Your task to perform on an android device: open a bookmark in the chrome app Image 0: 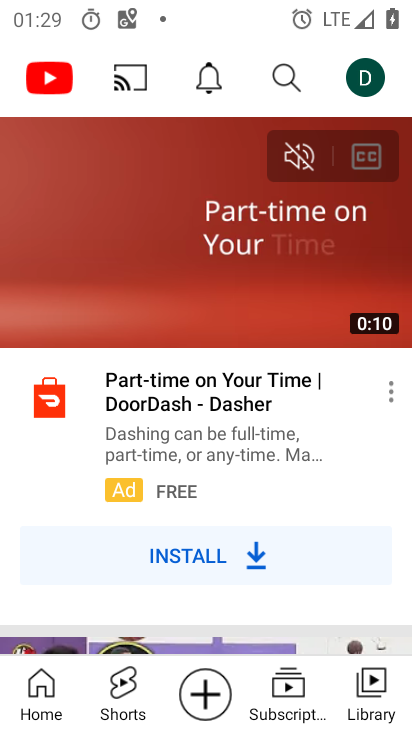
Step 0: press home button
Your task to perform on an android device: open a bookmark in the chrome app Image 1: 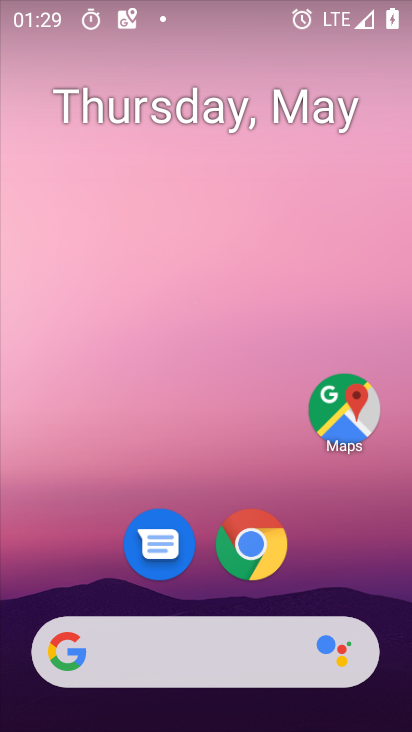
Step 1: drag from (370, 566) to (337, 112)
Your task to perform on an android device: open a bookmark in the chrome app Image 2: 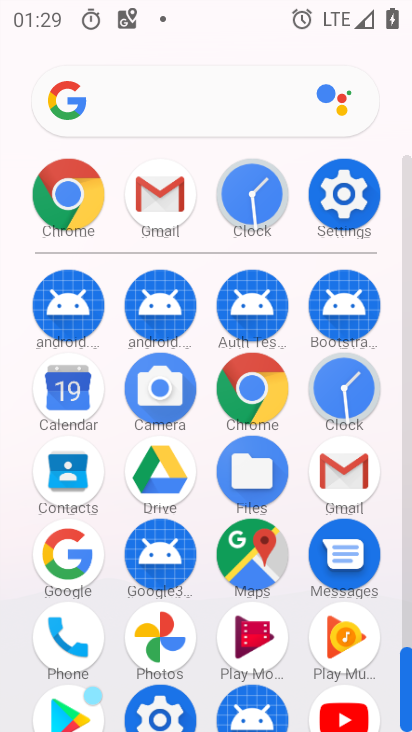
Step 2: click (277, 404)
Your task to perform on an android device: open a bookmark in the chrome app Image 3: 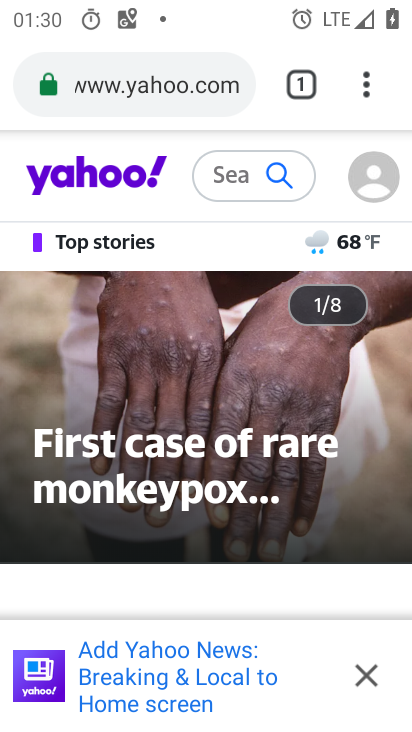
Step 3: click (367, 86)
Your task to perform on an android device: open a bookmark in the chrome app Image 4: 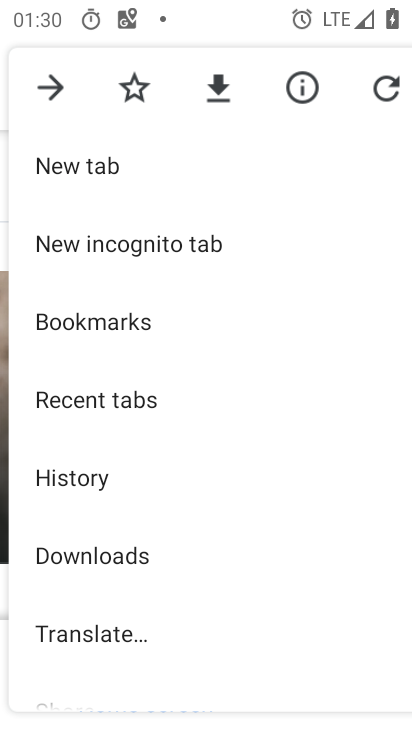
Step 4: drag from (329, 562) to (311, 385)
Your task to perform on an android device: open a bookmark in the chrome app Image 5: 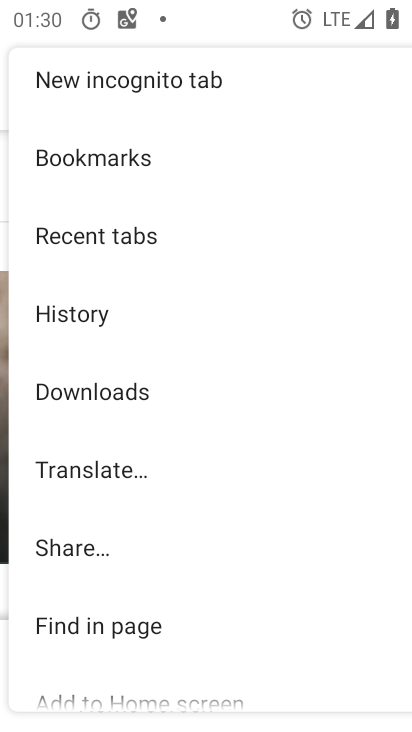
Step 5: drag from (302, 585) to (314, 411)
Your task to perform on an android device: open a bookmark in the chrome app Image 6: 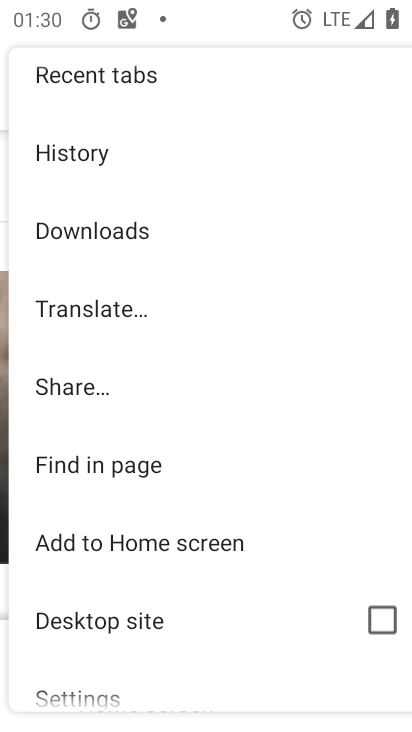
Step 6: drag from (301, 618) to (303, 461)
Your task to perform on an android device: open a bookmark in the chrome app Image 7: 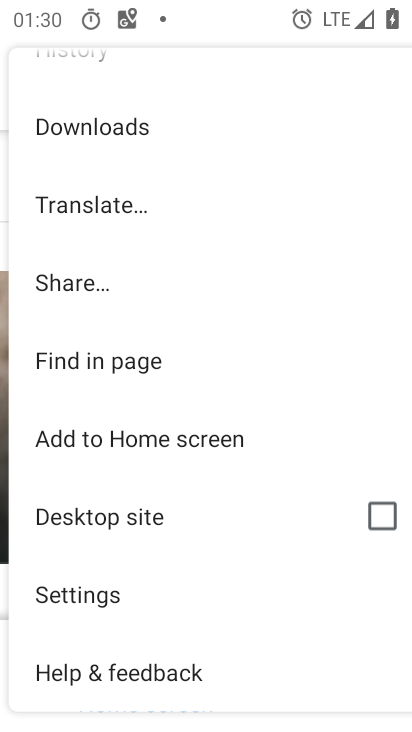
Step 7: drag from (279, 666) to (293, 452)
Your task to perform on an android device: open a bookmark in the chrome app Image 8: 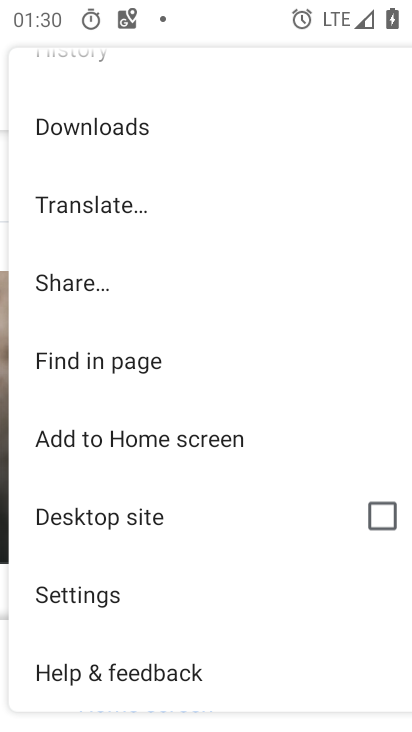
Step 8: drag from (312, 305) to (302, 479)
Your task to perform on an android device: open a bookmark in the chrome app Image 9: 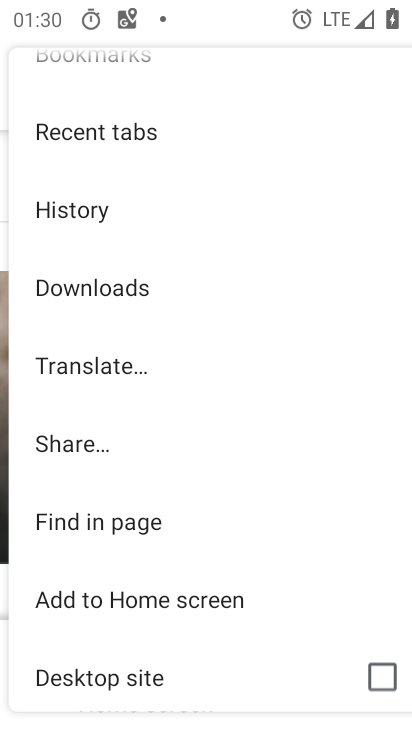
Step 9: drag from (302, 300) to (306, 466)
Your task to perform on an android device: open a bookmark in the chrome app Image 10: 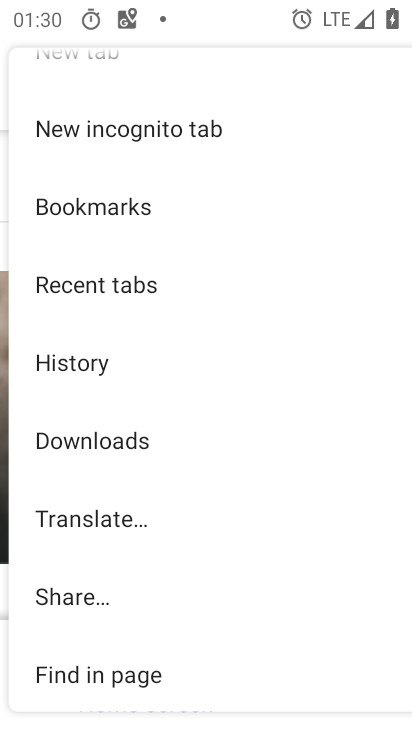
Step 10: drag from (300, 318) to (296, 466)
Your task to perform on an android device: open a bookmark in the chrome app Image 11: 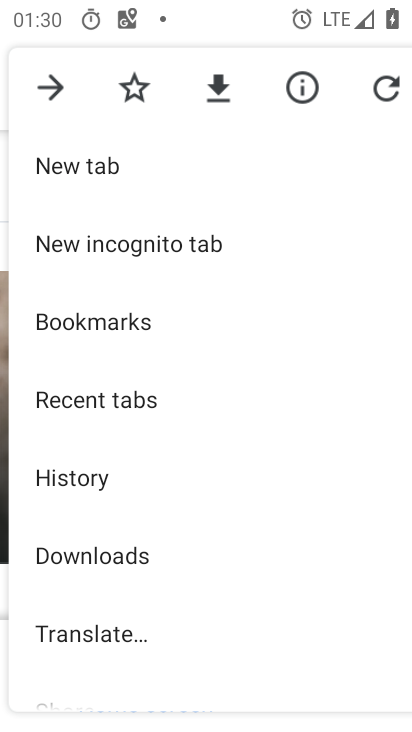
Step 11: click (162, 340)
Your task to perform on an android device: open a bookmark in the chrome app Image 12: 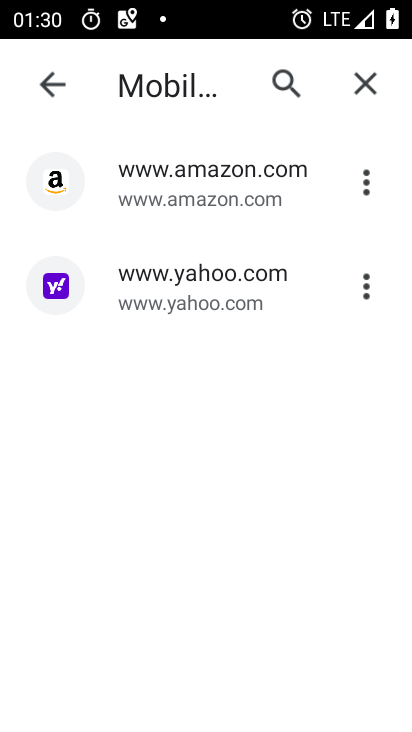
Step 12: click (202, 189)
Your task to perform on an android device: open a bookmark in the chrome app Image 13: 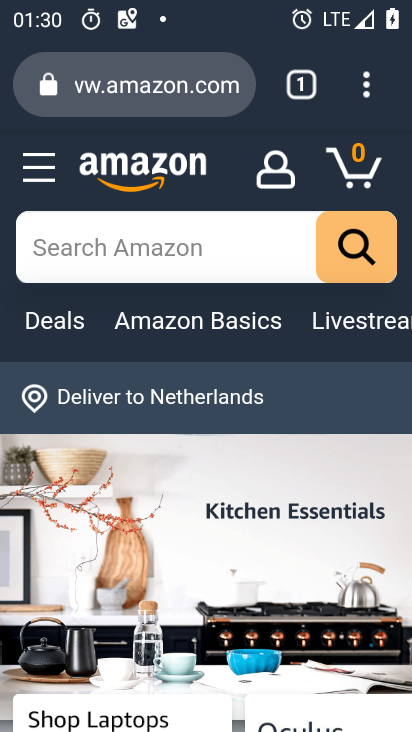
Step 13: task complete